Your task to perform on an android device: check data usage Image 0: 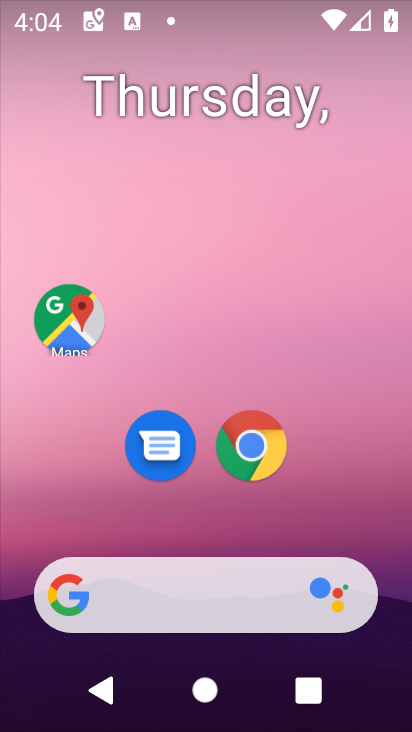
Step 0: drag from (315, 396) to (344, 69)
Your task to perform on an android device: check data usage Image 1: 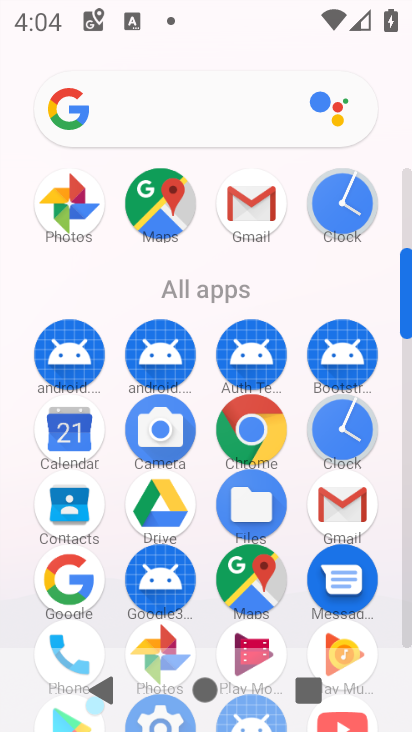
Step 1: drag from (389, 436) to (410, 81)
Your task to perform on an android device: check data usage Image 2: 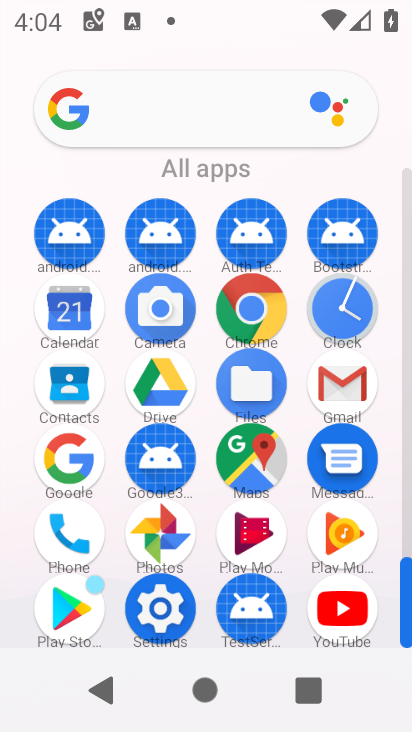
Step 2: click (146, 610)
Your task to perform on an android device: check data usage Image 3: 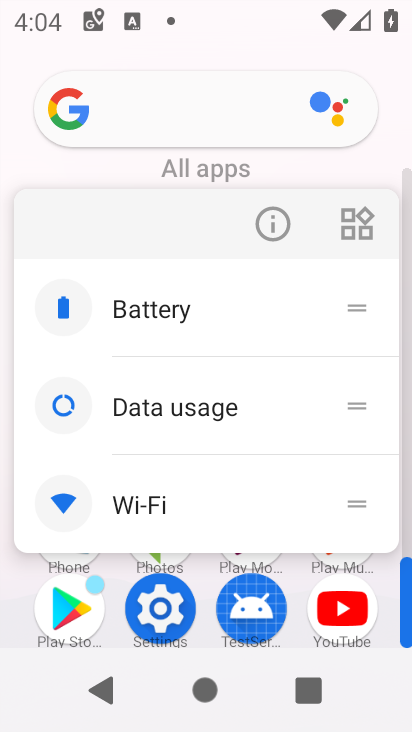
Step 3: click (148, 606)
Your task to perform on an android device: check data usage Image 4: 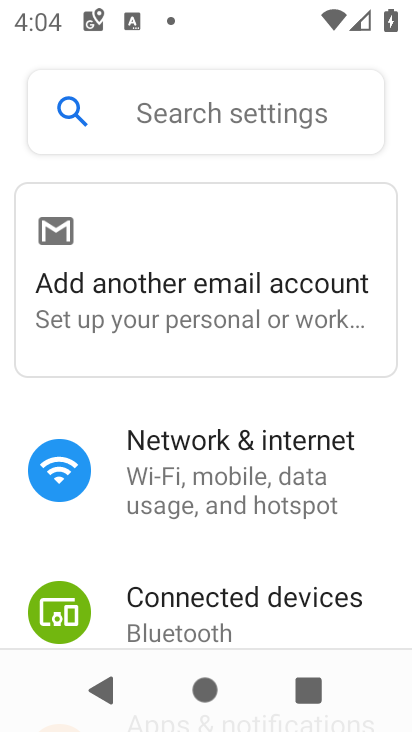
Step 4: click (204, 506)
Your task to perform on an android device: check data usage Image 5: 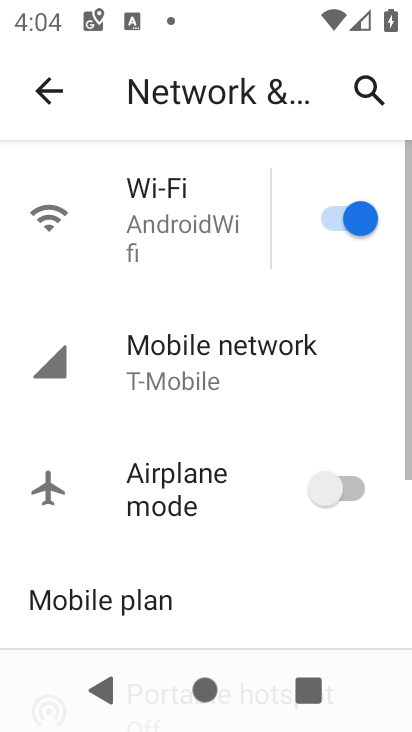
Step 5: click (228, 380)
Your task to perform on an android device: check data usage Image 6: 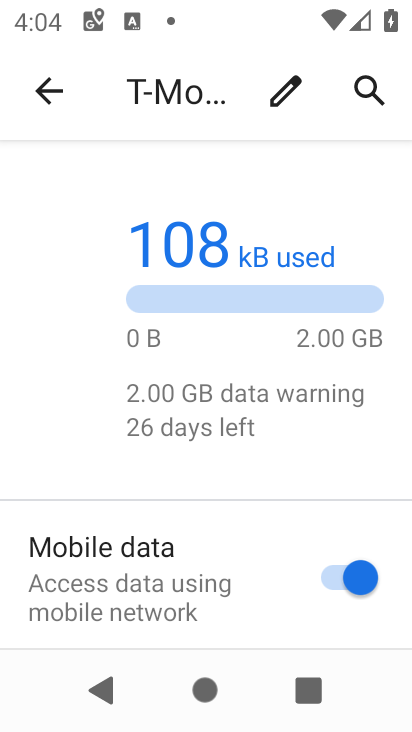
Step 6: task complete